Your task to perform on an android device: turn on wifi Image 0: 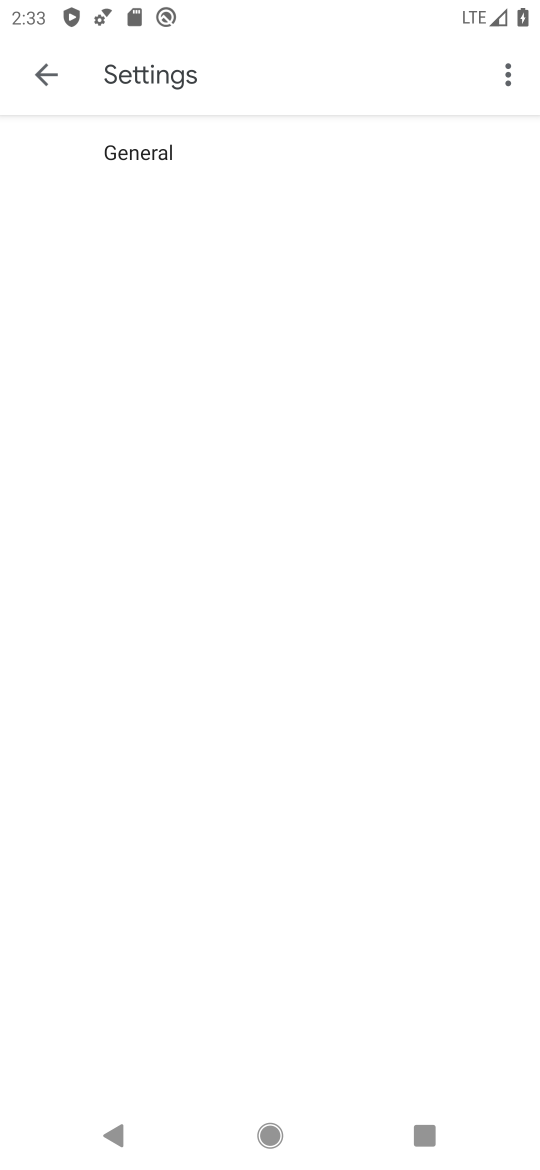
Step 0: press home button
Your task to perform on an android device: turn on wifi Image 1: 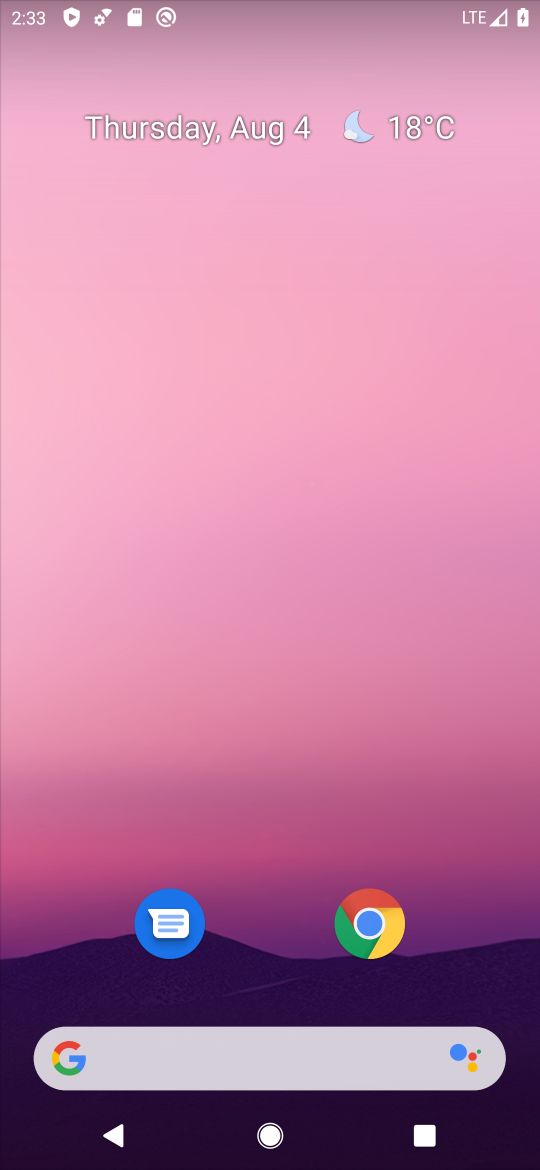
Step 1: drag from (237, 926) to (169, 49)
Your task to perform on an android device: turn on wifi Image 2: 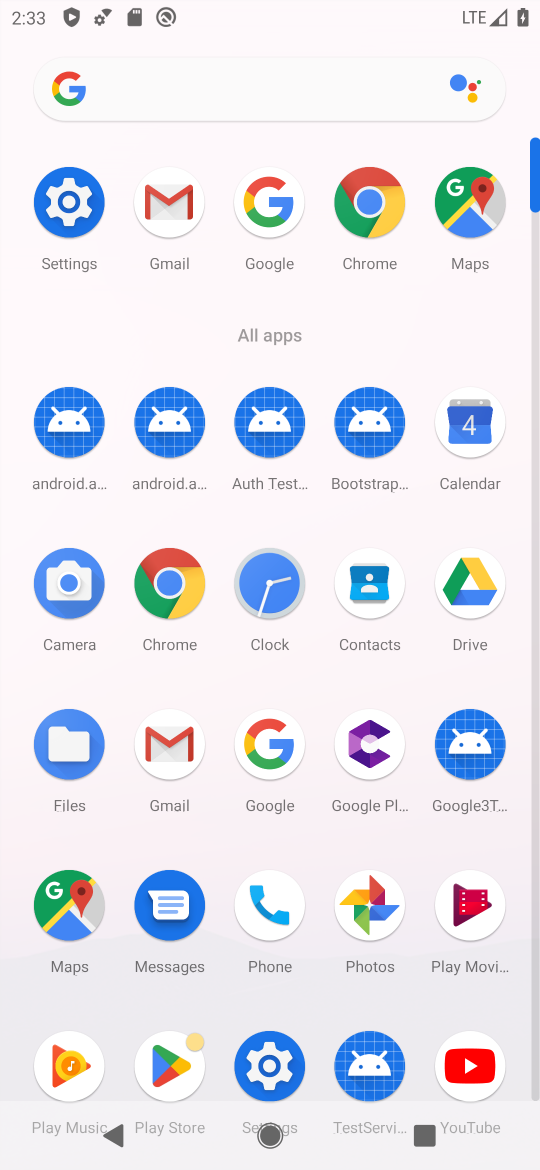
Step 2: click (56, 212)
Your task to perform on an android device: turn on wifi Image 3: 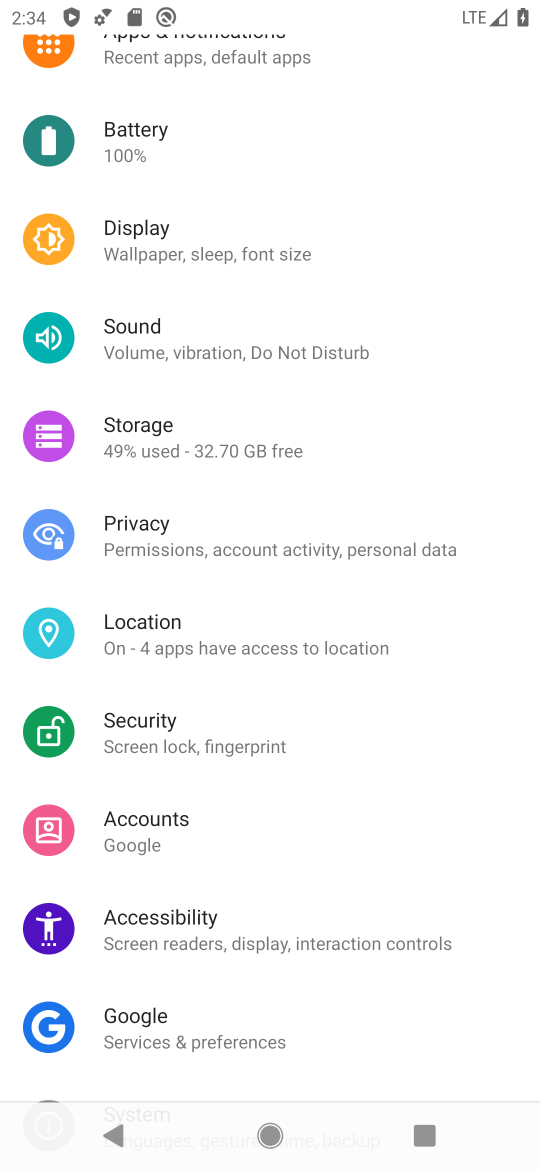
Step 3: drag from (236, 213) to (348, 776)
Your task to perform on an android device: turn on wifi Image 4: 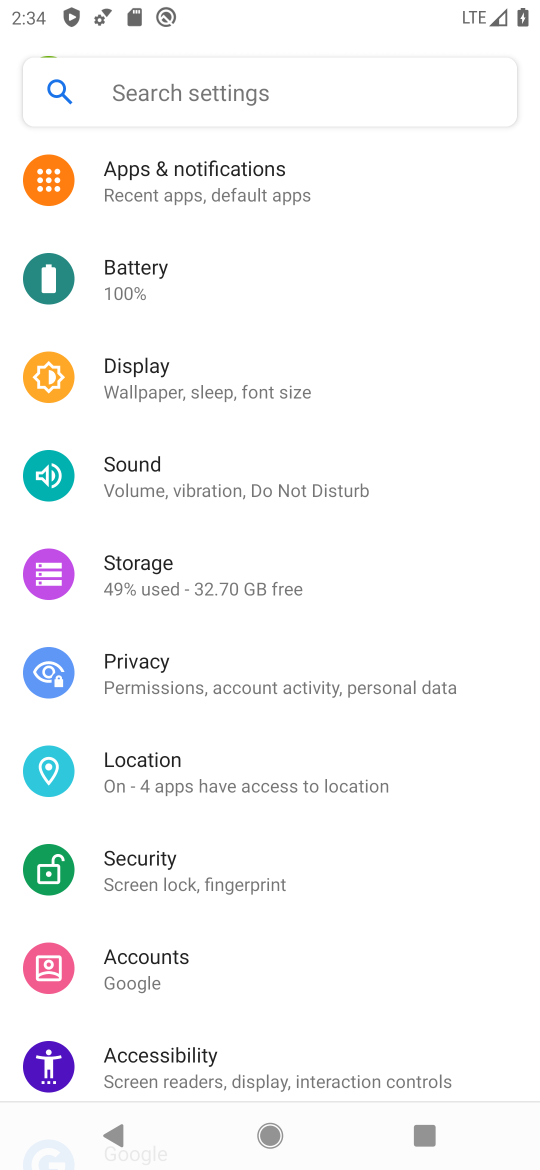
Step 4: click (147, 171)
Your task to perform on an android device: turn on wifi Image 5: 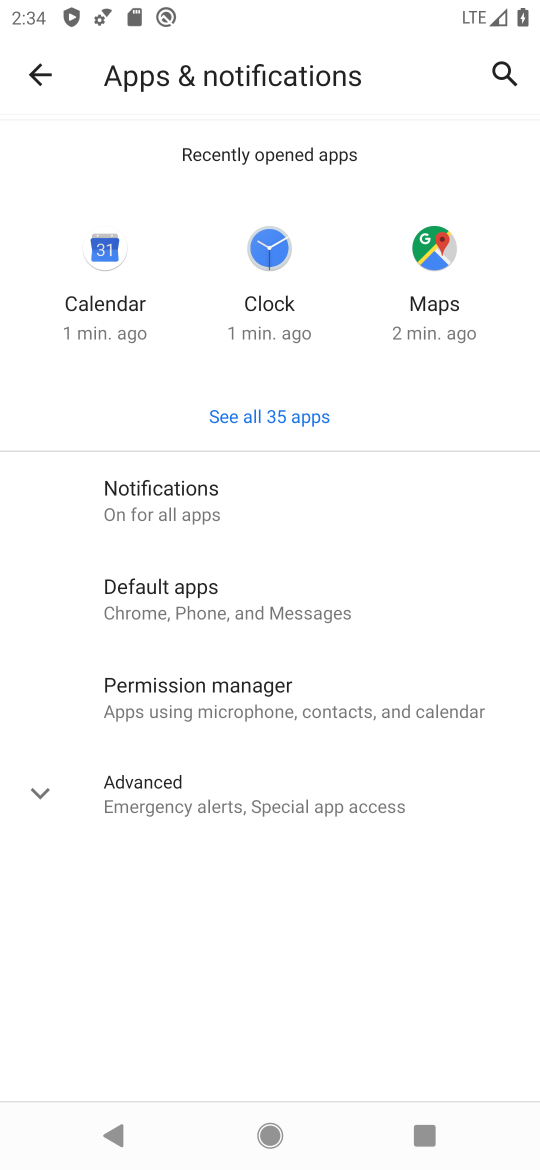
Step 5: click (42, 75)
Your task to perform on an android device: turn on wifi Image 6: 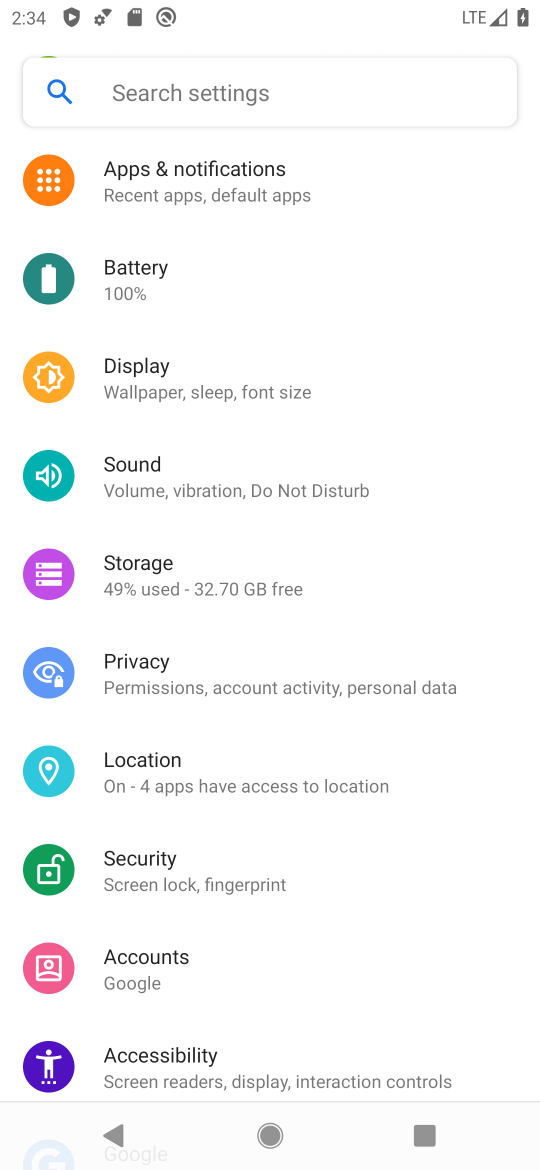
Step 6: drag from (166, 134) to (367, 885)
Your task to perform on an android device: turn on wifi Image 7: 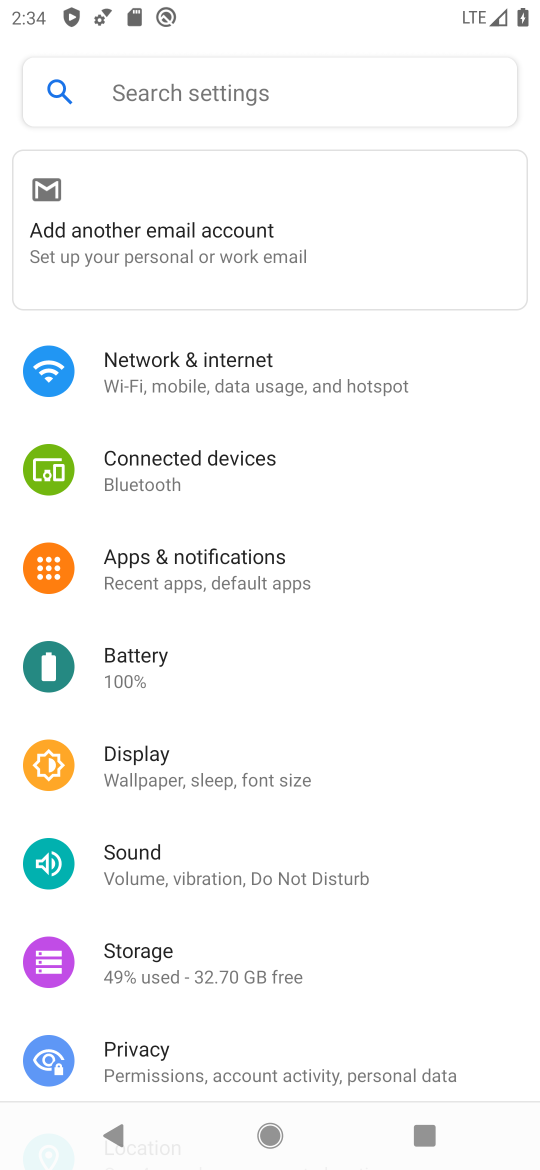
Step 7: click (236, 382)
Your task to perform on an android device: turn on wifi Image 8: 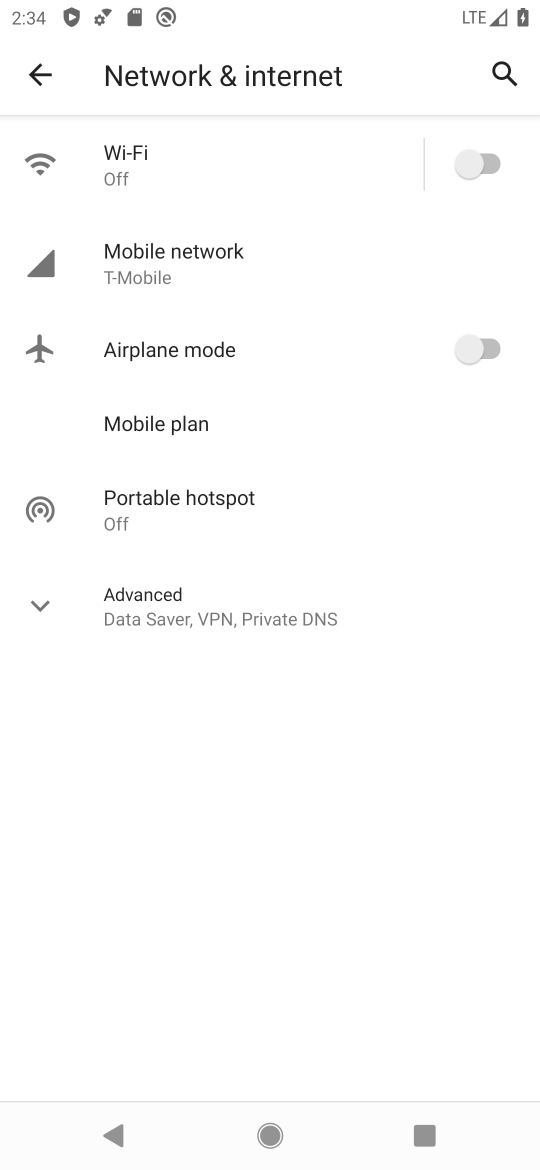
Step 8: click (472, 183)
Your task to perform on an android device: turn on wifi Image 9: 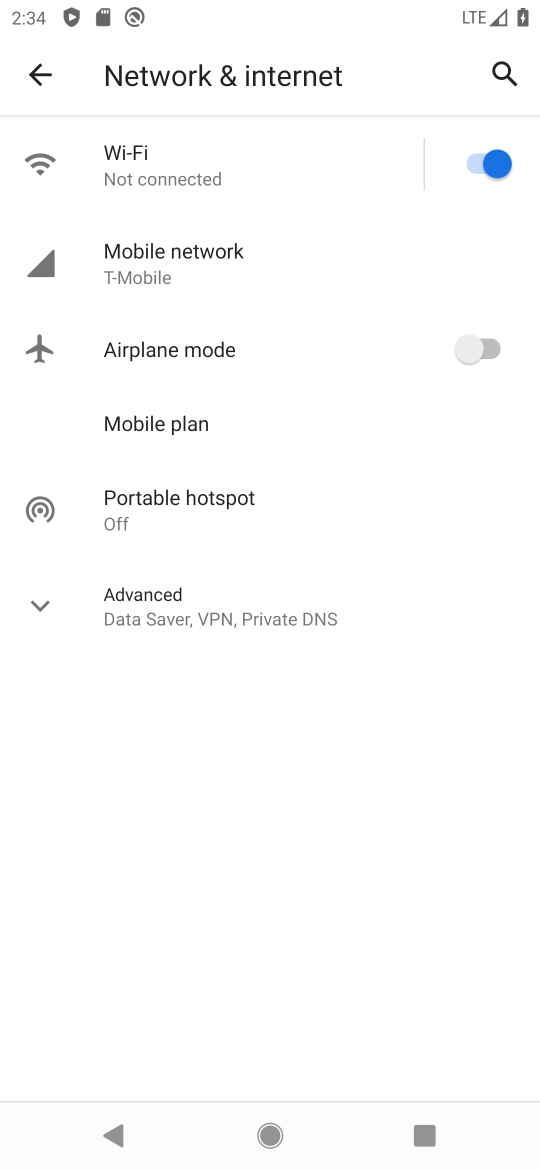
Step 9: task complete